Your task to perform on an android device: allow notifications from all sites in the chrome app Image 0: 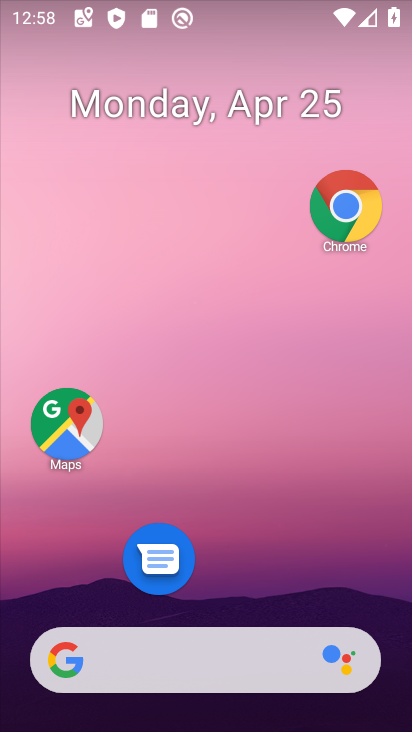
Step 0: drag from (232, 565) to (244, 186)
Your task to perform on an android device: allow notifications from all sites in the chrome app Image 1: 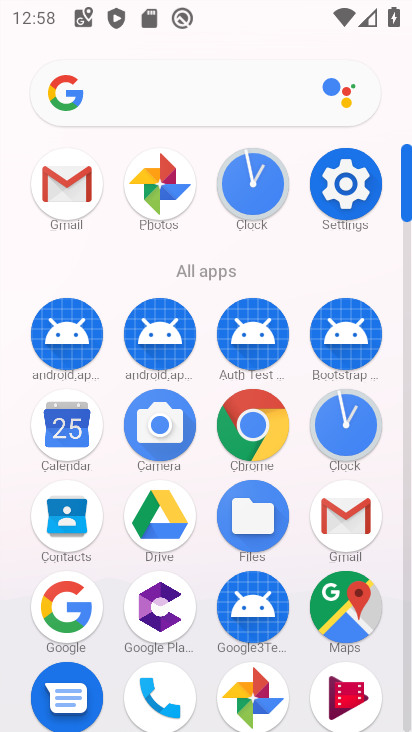
Step 1: click (255, 423)
Your task to perform on an android device: allow notifications from all sites in the chrome app Image 2: 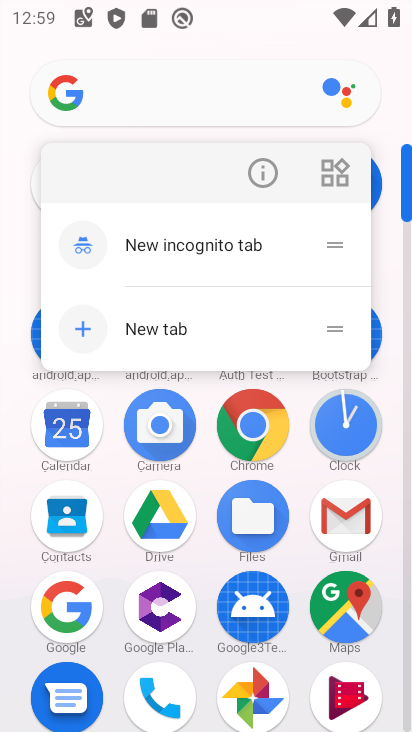
Step 2: click (249, 425)
Your task to perform on an android device: allow notifications from all sites in the chrome app Image 3: 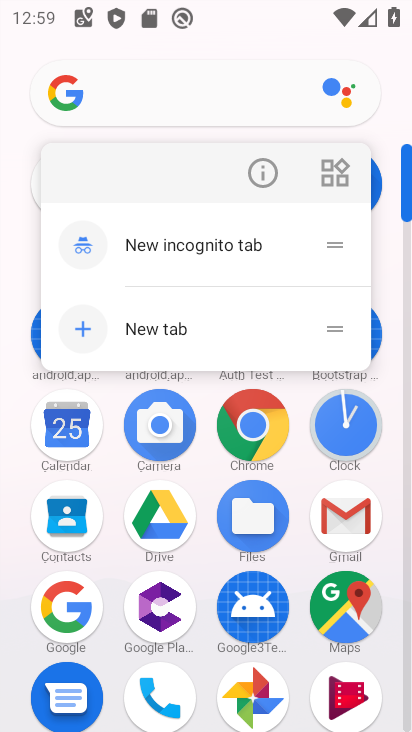
Step 3: click (254, 426)
Your task to perform on an android device: allow notifications from all sites in the chrome app Image 4: 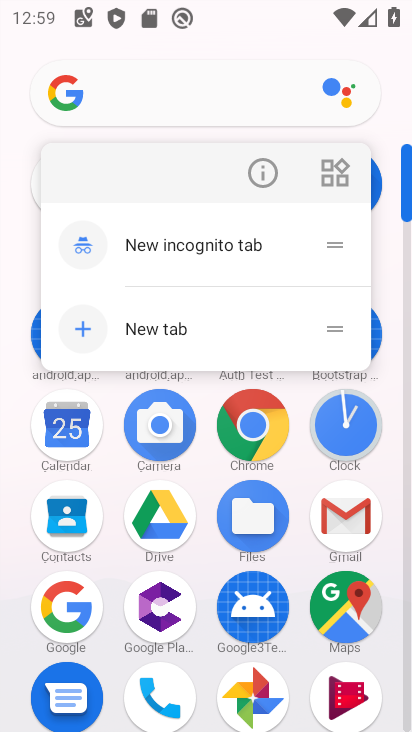
Step 4: click (260, 424)
Your task to perform on an android device: allow notifications from all sites in the chrome app Image 5: 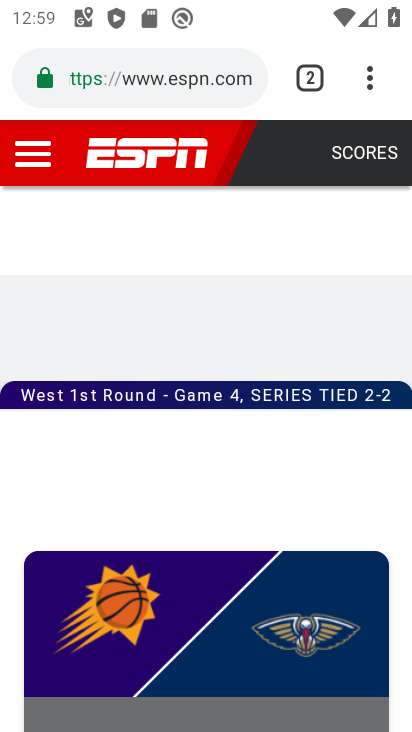
Step 5: click (371, 77)
Your task to perform on an android device: allow notifications from all sites in the chrome app Image 6: 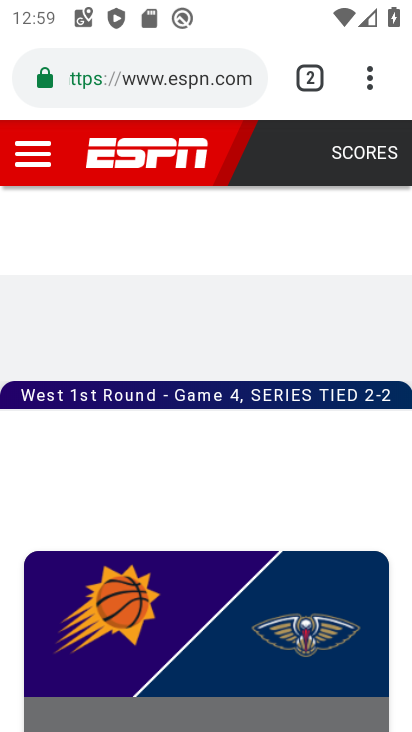
Step 6: drag from (364, 77) to (85, 608)
Your task to perform on an android device: allow notifications from all sites in the chrome app Image 7: 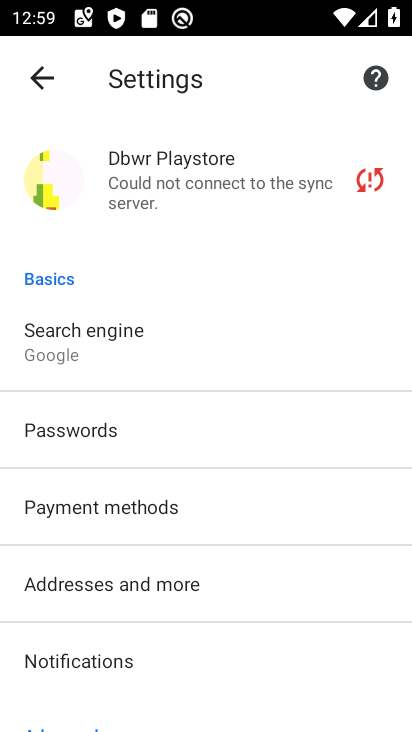
Step 7: drag from (153, 646) to (235, 170)
Your task to perform on an android device: allow notifications from all sites in the chrome app Image 8: 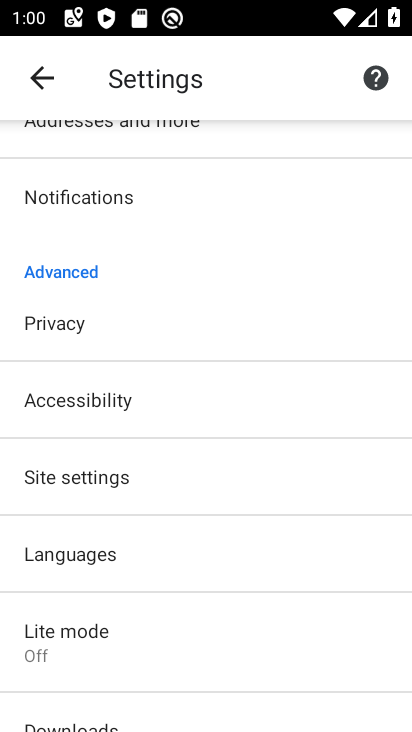
Step 8: click (108, 194)
Your task to perform on an android device: allow notifications from all sites in the chrome app Image 9: 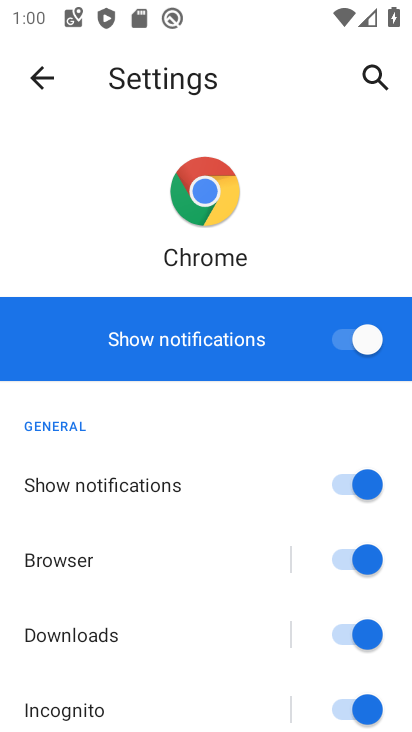
Step 9: task complete